Your task to perform on an android device: Is it going to rain tomorrow? Image 0: 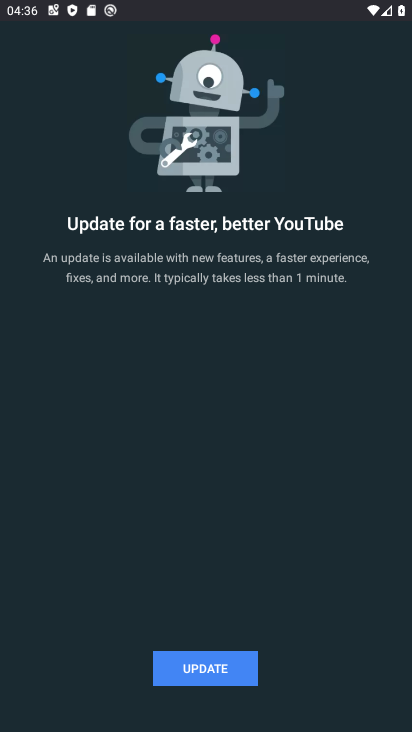
Step 0: press home button
Your task to perform on an android device: Is it going to rain tomorrow? Image 1: 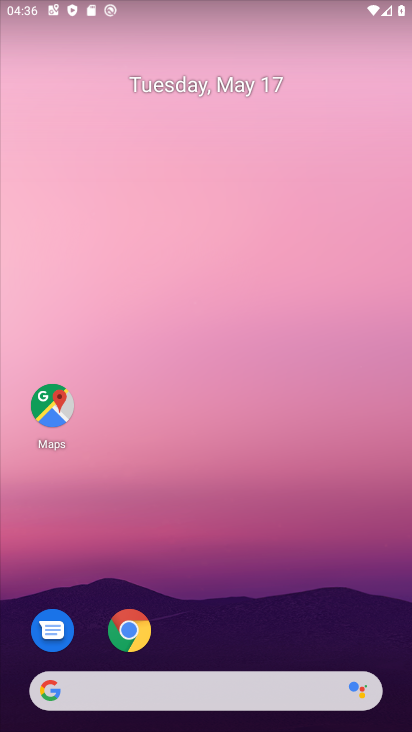
Step 1: click (118, 631)
Your task to perform on an android device: Is it going to rain tomorrow? Image 2: 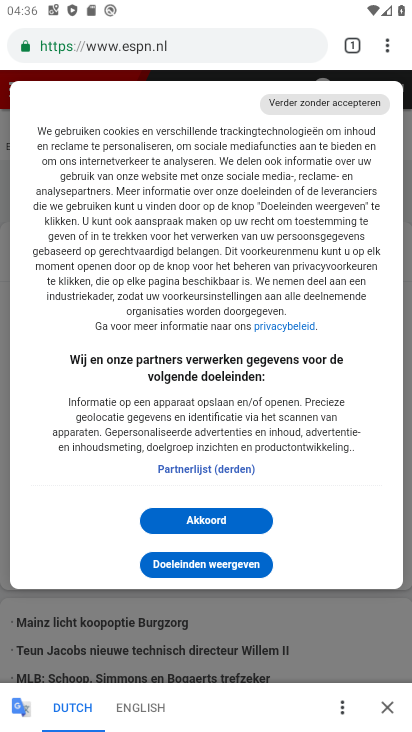
Step 2: click (171, 39)
Your task to perform on an android device: Is it going to rain tomorrow? Image 3: 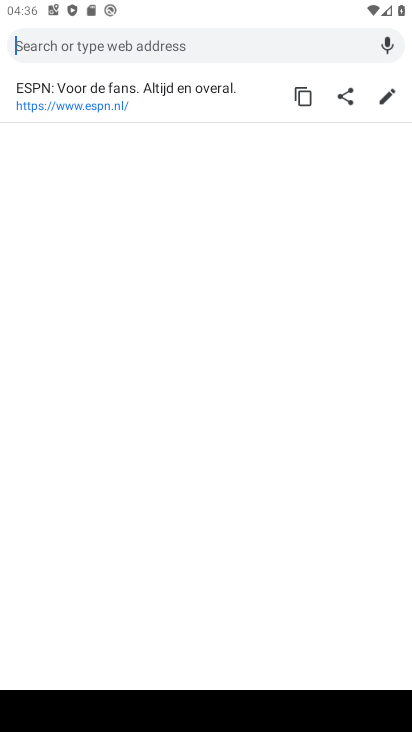
Step 3: type "Is it going to rain tomorrow?"
Your task to perform on an android device: Is it going to rain tomorrow? Image 4: 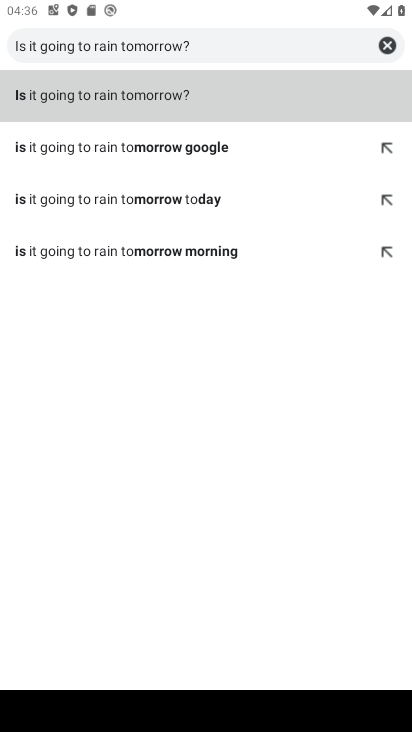
Step 4: click (82, 99)
Your task to perform on an android device: Is it going to rain tomorrow? Image 5: 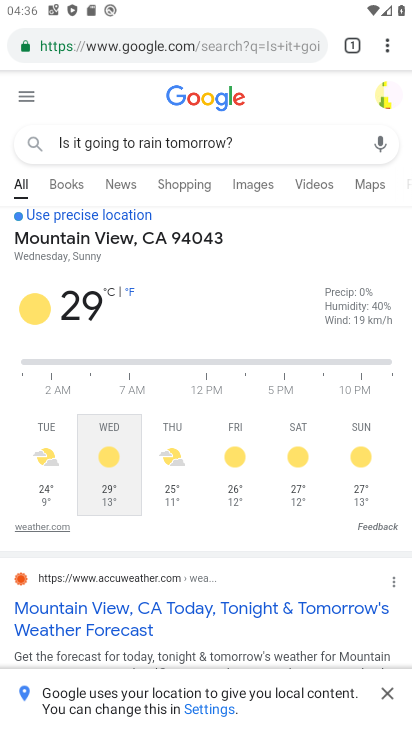
Step 5: task complete